Your task to perform on an android device: Search for Italian restaurants on Maps Image 0: 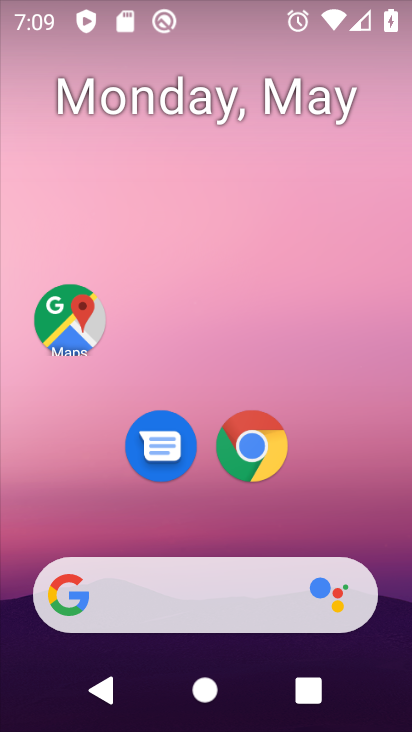
Step 0: click (59, 318)
Your task to perform on an android device: Search for Italian restaurants on Maps Image 1: 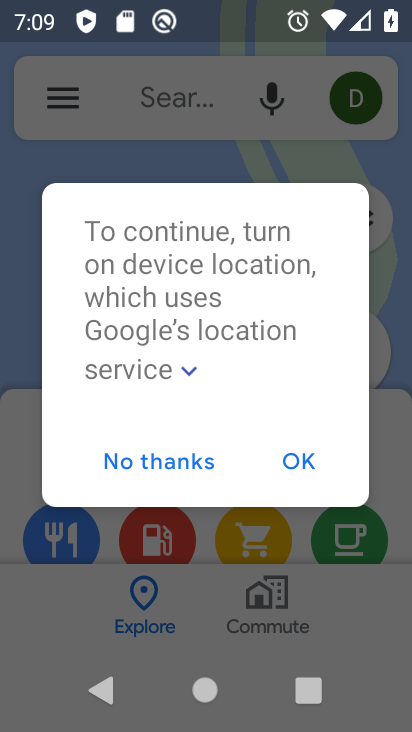
Step 1: click (110, 101)
Your task to perform on an android device: Search for Italian restaurants on Maps Image 2: 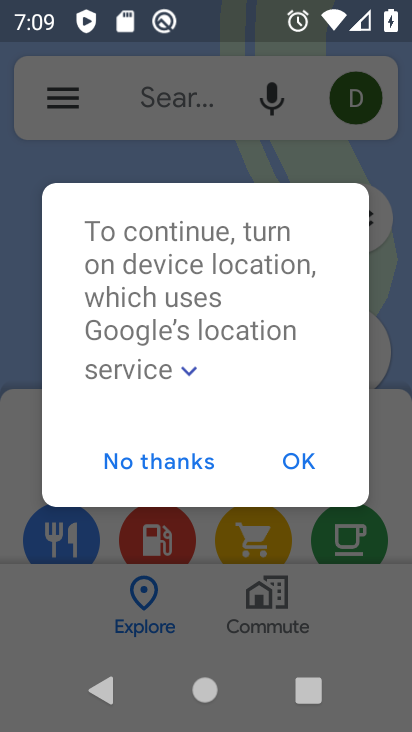
Step 2: click (285, 456)
Your task to perform on an android device: Search for Italian restaurants on Maps Image 3: 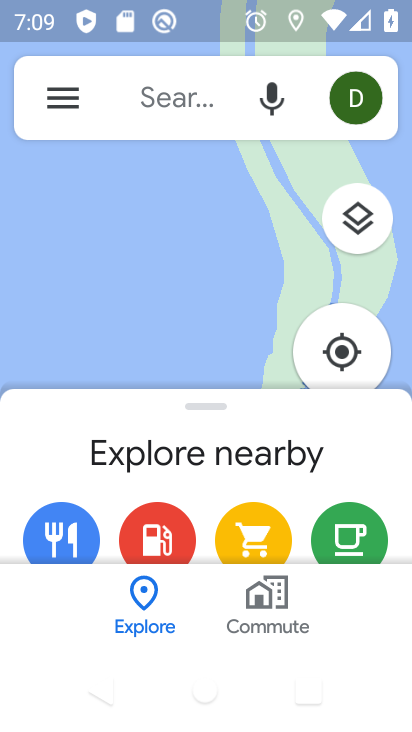
Step 3: click (176, 102)
Your task to perform on an android device: Search for Italian restaurants on Maps Image 4: 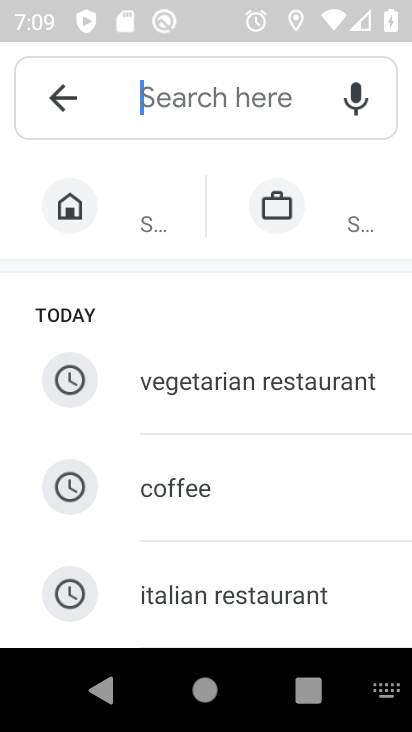
Step 4: click (238, 593)
Your task to perform on an android device: Search for Italian restaurants on Maps Image 5: 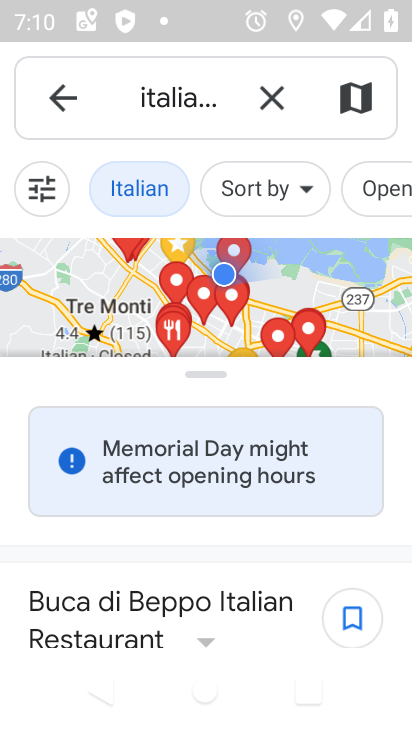
Step 5: task complete